Your task to perform on an android device: Open settings on Google Maps Image 0: 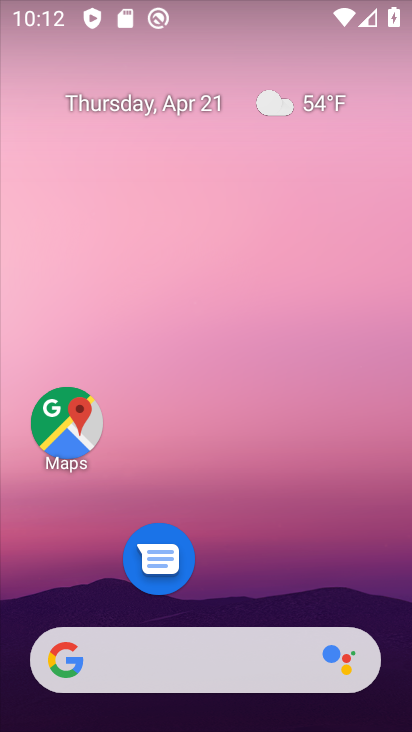
Step 0: click (58, 415)
Your task to perform on an android device: Open settings on Google Maps Image 1: 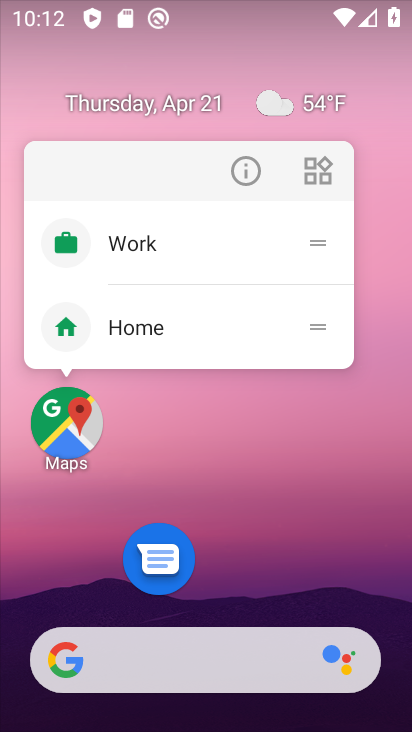
Step 1: click (82, 434)
Your task to perform on an android device: Open settings on Google Maps Image 2: 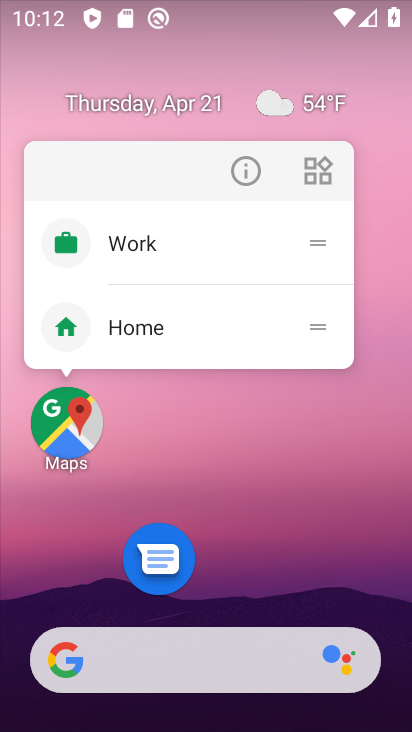
Step 2: click (76, 416)
Your task to perform on an android device: Open settings on Google Maps Image 3: 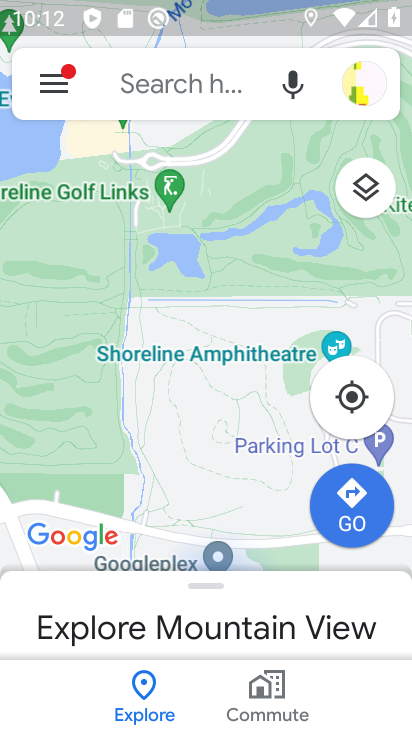
Step 3: click (49, 70)
Your task to perform on an android device: Open settings on Google Maps Image 4: 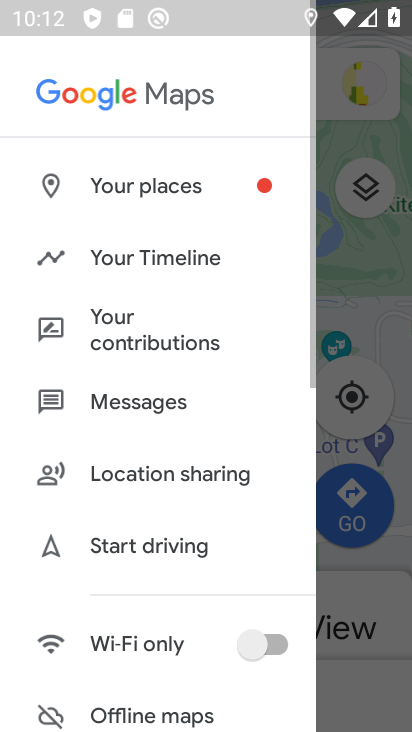
Step 4: drag from (149, 667) to (215, 96)
Your task to perform on an android device: Open settings on Google Maps Image 5: 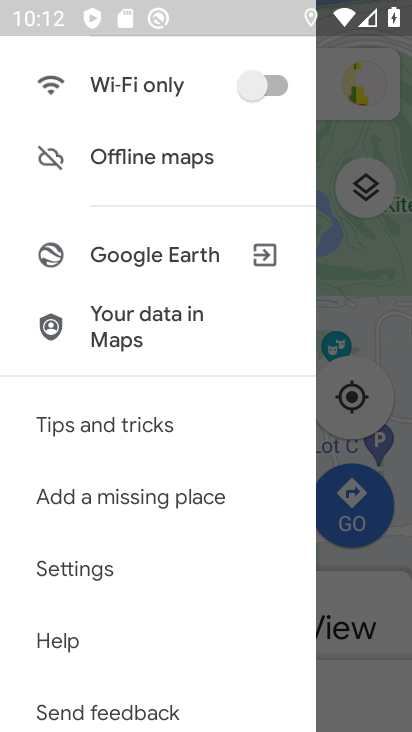
Step 5: click (90, 575)
Your task to perform on an android device: Open settings on Google Maps Image 6: 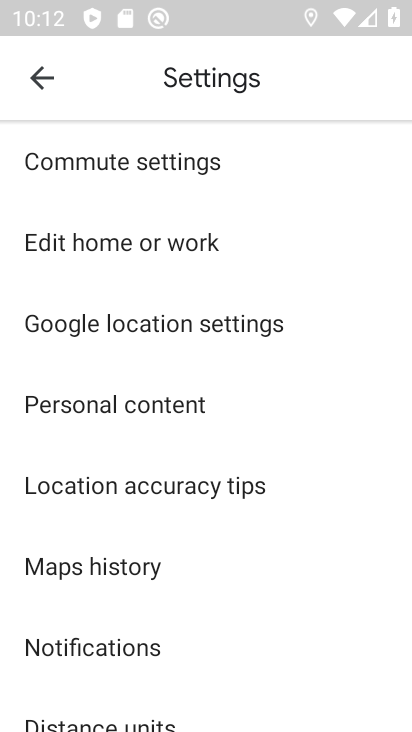
Step 6: task complete